Your task to perform on an android device: open wifi settings Image 0: 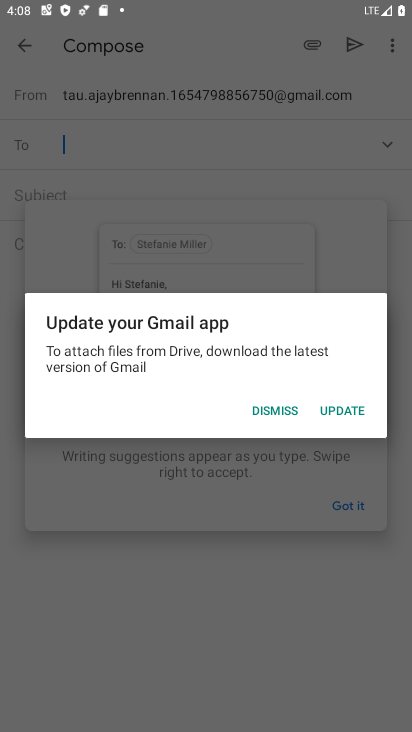
Step 0: press home button
Your task to perform on an android device: open wifi settings Image 1: 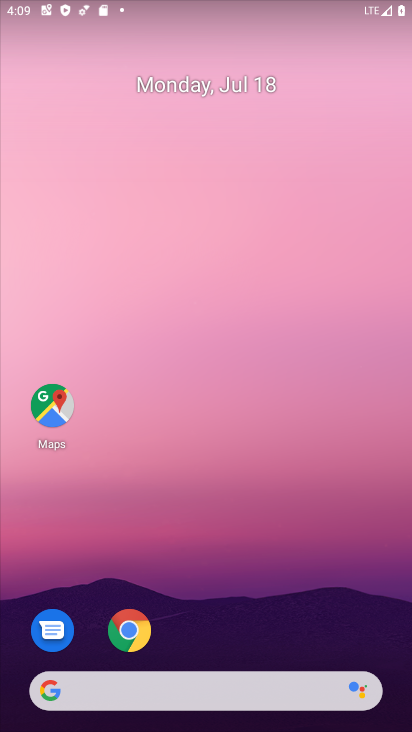
Step 1: drag from (338, 614) to (316, 251)
Your task to perform on an android device: open wifi settings Image 2: 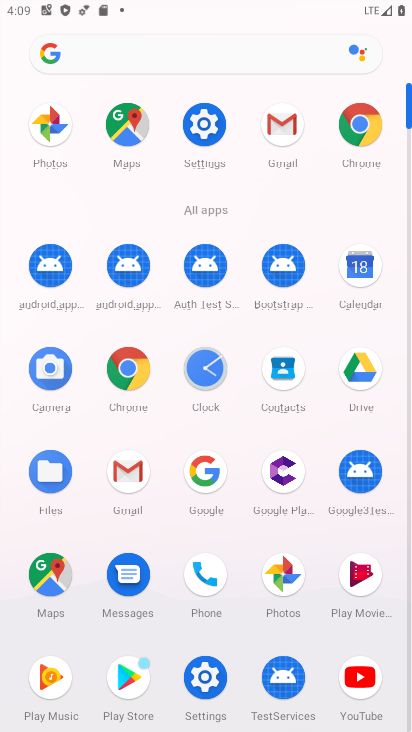
Step 2: click (205, 675)
Your task to perform on an android device: open wifi settings Image 3: 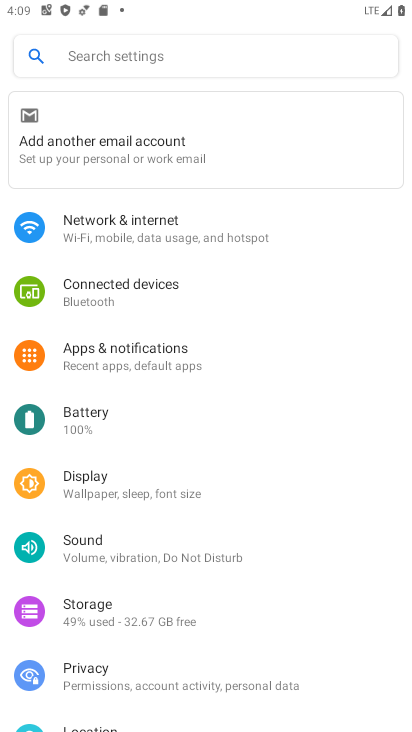
Step 3: click (90, 220)
Your task to perform on an android device: open wifi settings Image 4: 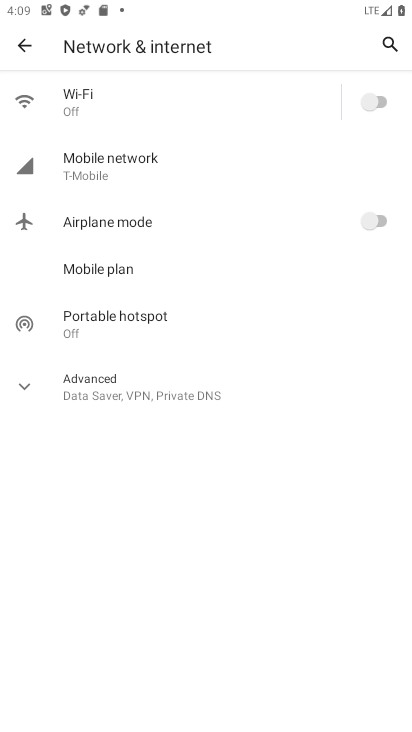
Step 4: click (66, 104)
Your task to perform on an android device: open wifi settings Image 5: 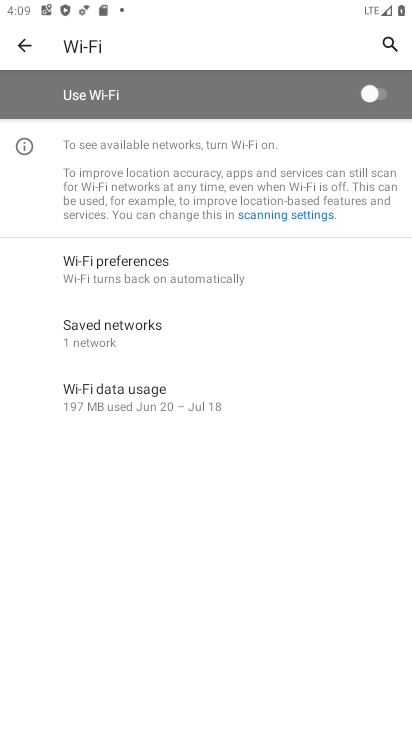
Step 5: task complete